Your task to perform on an android device: show emergency info Image 0: 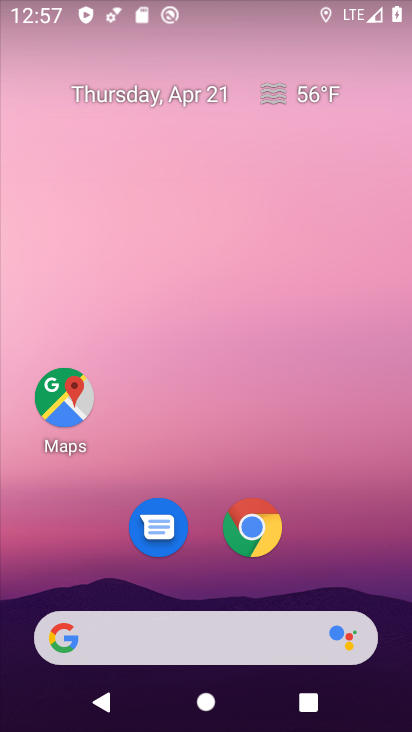
Step 0: drag from (205, 374) to (228, 0)
Your task to perform on an android device: show emergency info Image 1: 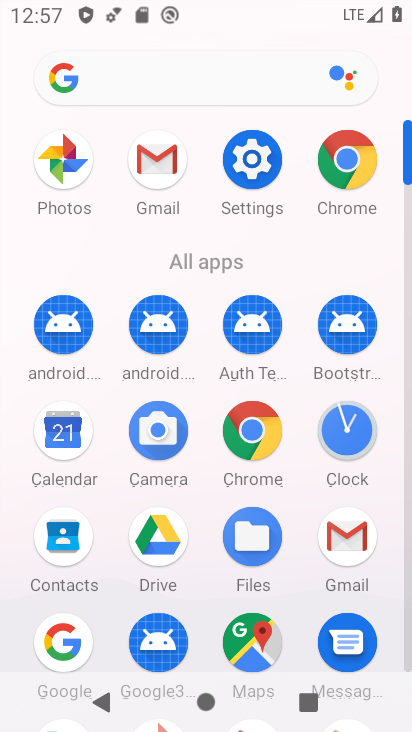
Step 1: click (262, 157)
Your task to perform on an android device: show emergency info Image 2: 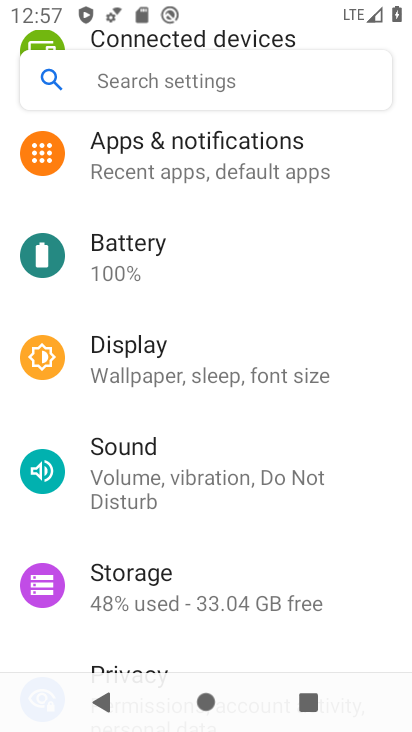
Step 2: drag from (188, 646) to (300, 217)
Your task to perform on an android device: show emergency info Image 3: 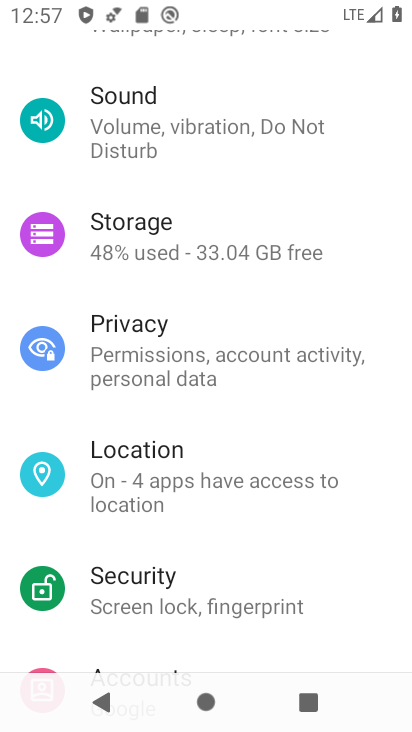
Step 3: drag from (196, 652) to (306, 172)
Your task to perform on an android device: show emergency info Image 4: 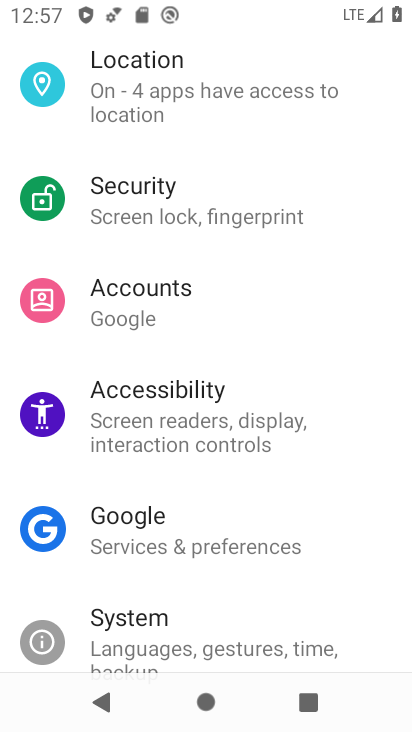
Step 4: drag from (209, 655) to (302, 163)
Your task to perform on an android device: show emergency info Image 5: 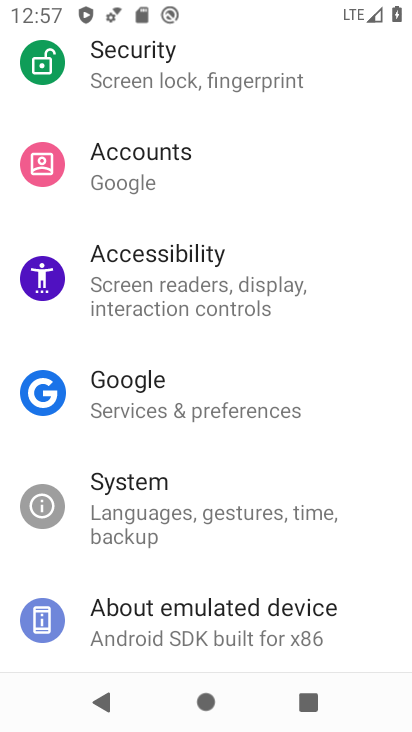
Step 5: click (204, 617)
Your task to perform on an android device: show emergency info Image 6: 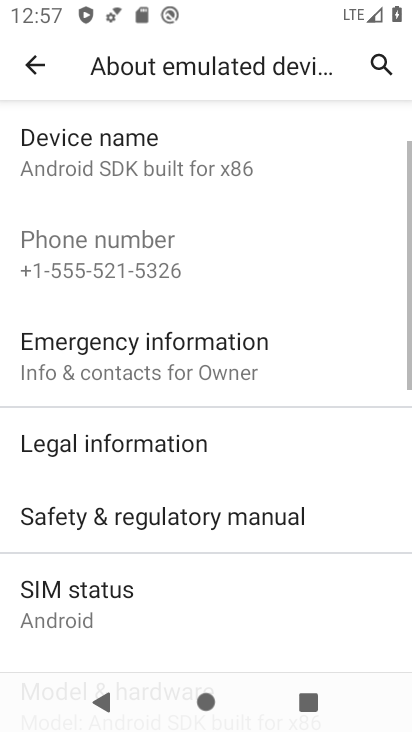
Step 6: task complete